Your task to perform on an android device: Do I have any events tomorrow? Image 0: 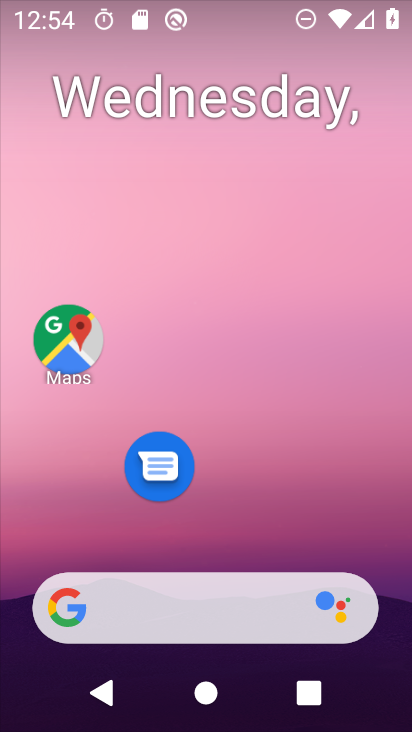
Step 0: drag from (310, 490) to (202, 111)
Your task to perform on an android device: Do I have any events tomorrow? Image 1: 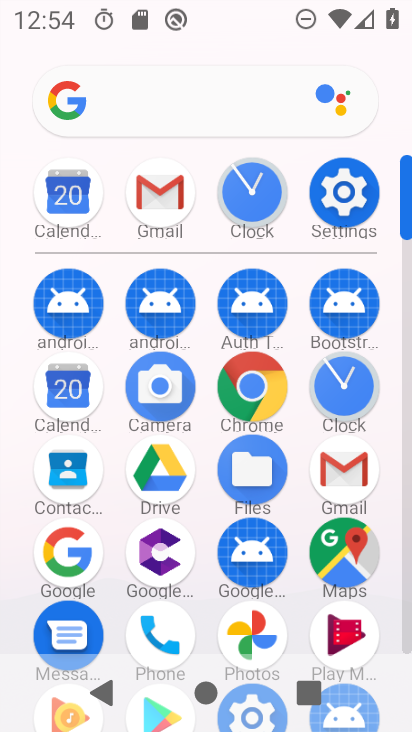
Step 1: click (58, 402)
Your task to perform on an android device: Do I have any events tomorrow? Image 2: 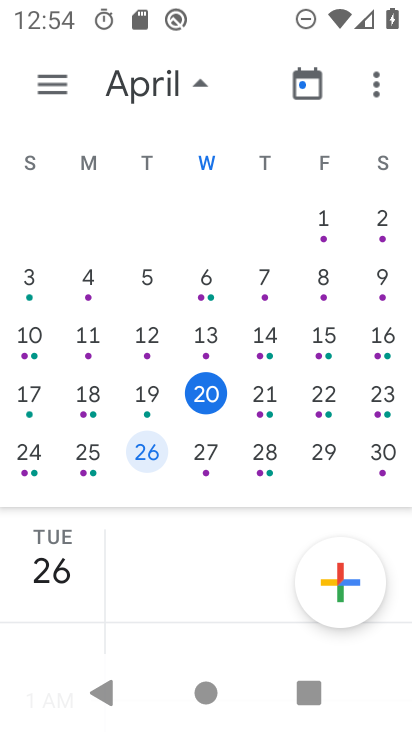
Step 2: click (259, 389)
Your task to perform on an android device: Do I have any events tomorrow? Image 3: 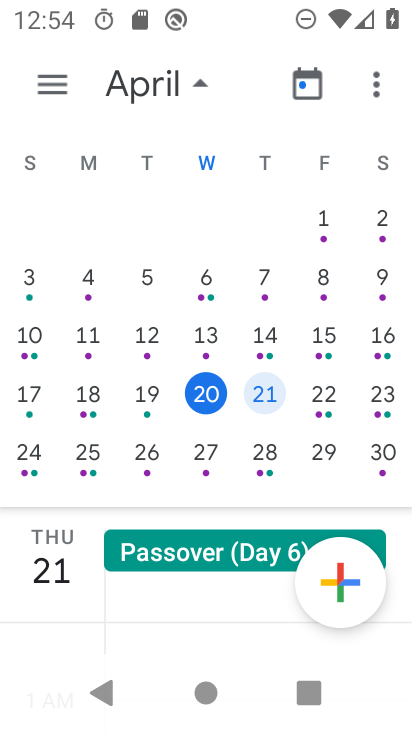
Step 3: task complete